Your task to perform on an android device: Go to Reddit.com Image 0: 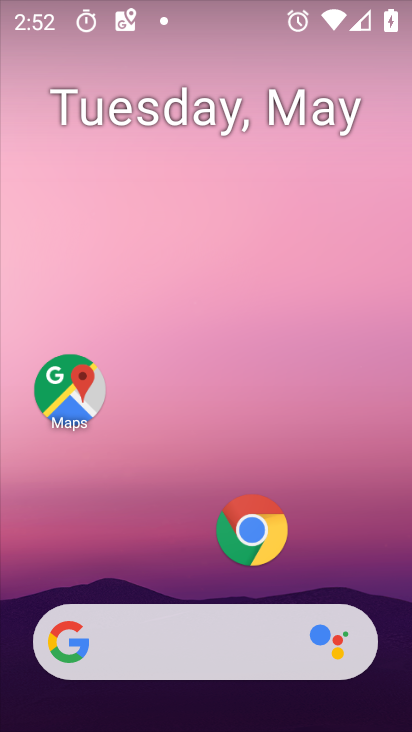
Step 0: click (236, 542)
Your task to perform on an android device: Go to Reddit.com Image 1: 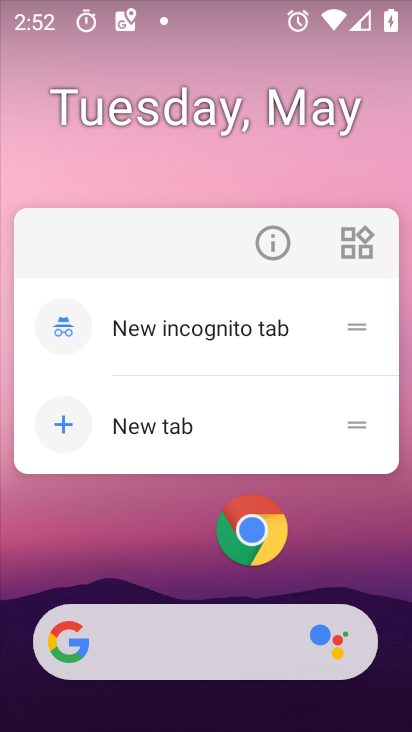
Step 1: click (249, 522)
Your task to perform on an android device: Go to Reddit.com Image 2: 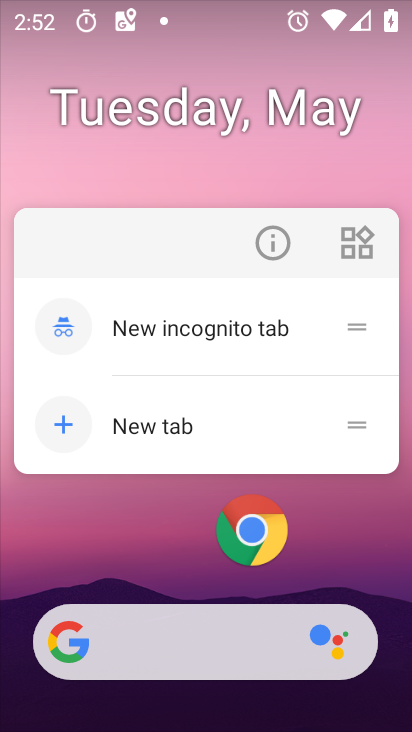
Step 2: click (270, 526)
Your task to perform on an android device: Go to Reddit.com Image 3: 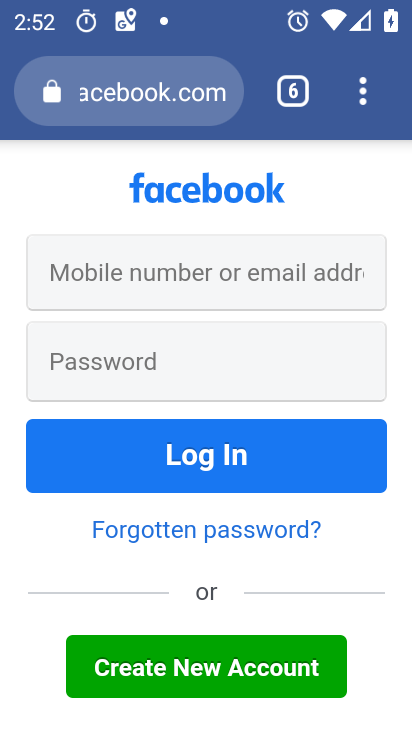
Step 3: click (302, 96)
Your task to perform on an android device: Go to Reddit.com Image 4: 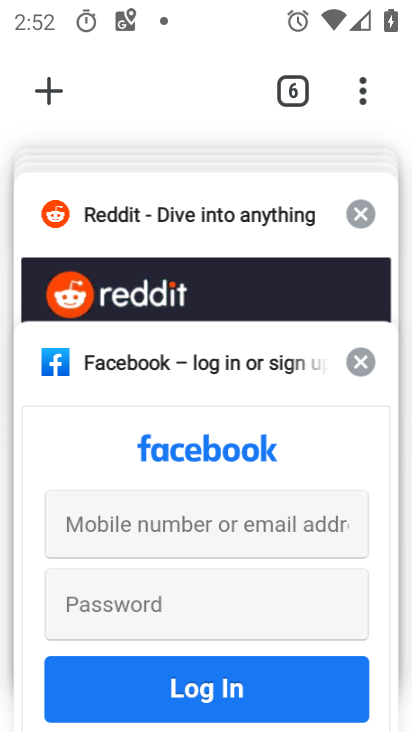
Step 4: click (68, 92)
Your task to perform on an android device: Go to Reddit.com Image 5: 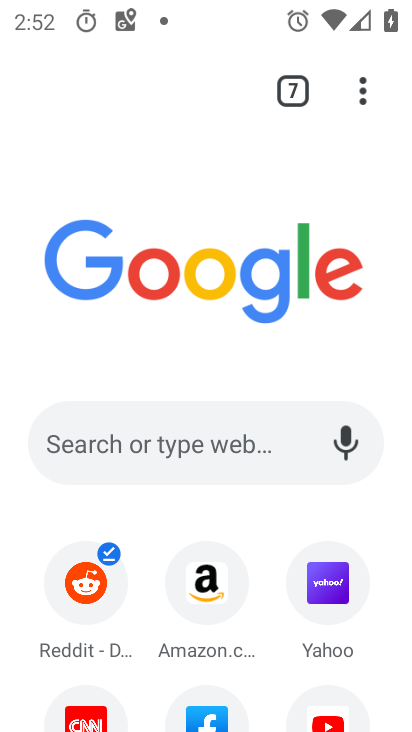
Step 5: click (72, 597)
Your task to perform on an android device: Go to Reddit.com Image 6: 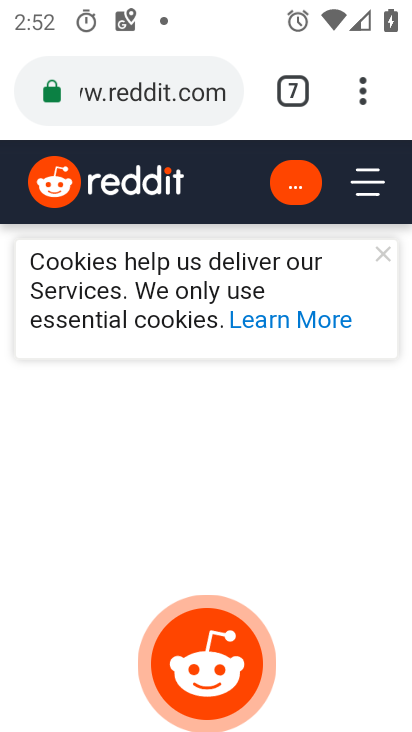
Step 6: task complete